Your task to perform on an android device: Open location settings Image 0: 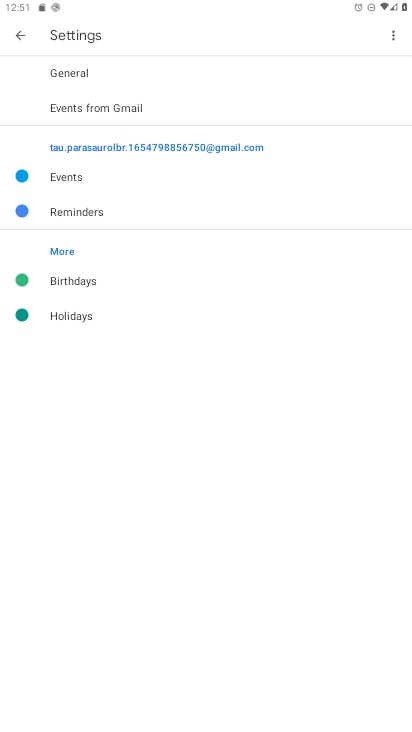
Step 0: press home button
Your task to perform on an android device: Open location settings Image 1: 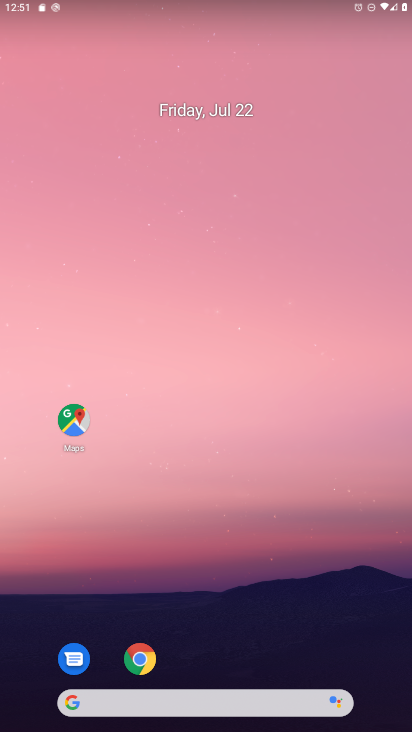
Step 1: drag from (301, 676) to (315, 217)
Your task to perform on an android device: Open location settings Image 2: 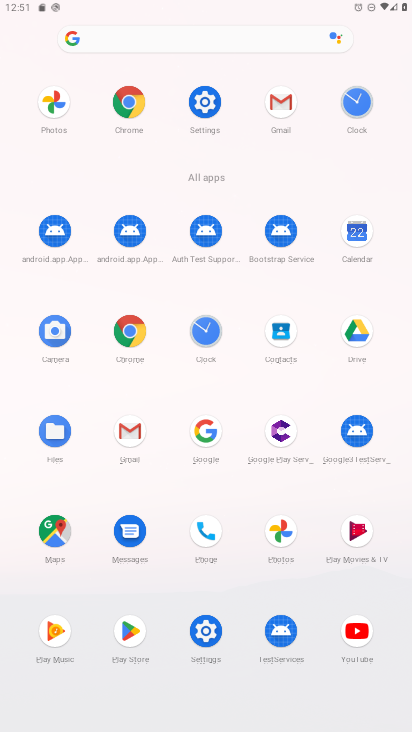
Step 2: click (215, 635)
Your task to perform on an android device: Open location settings Image 3: 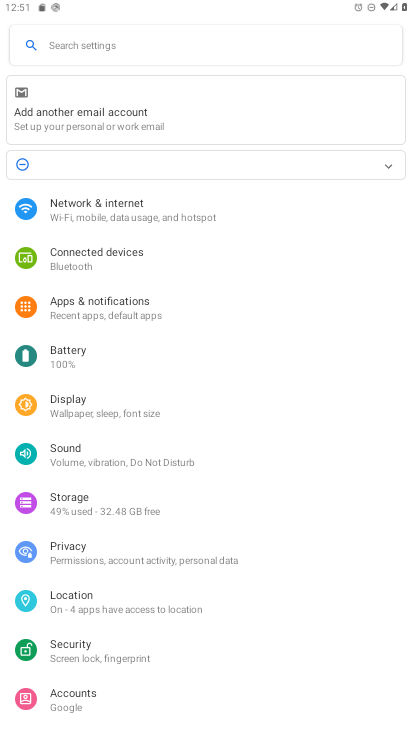
Step 3: click (88, 607)
Your task to perform on an android device: Open location settings Image 4: 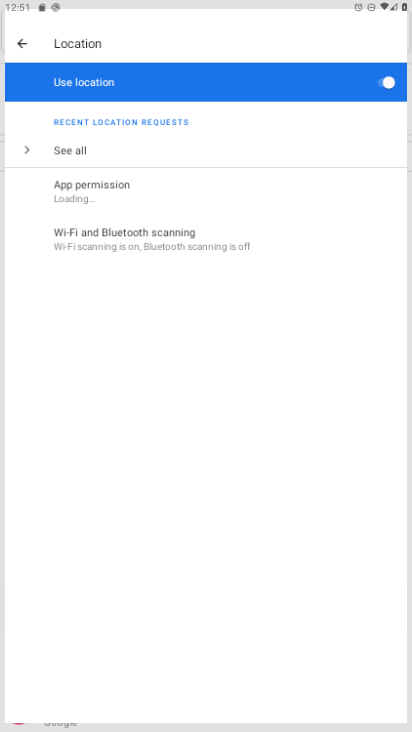
Step 4: click (81, 597)
Your task to perform on an android device: Open location settings Image 5: 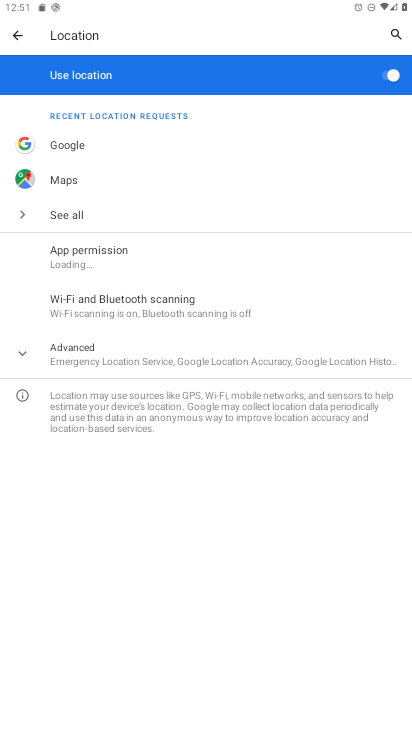
Step 5: click (175, 506)
Your task to perform on an android device: Open location settings Image 6: 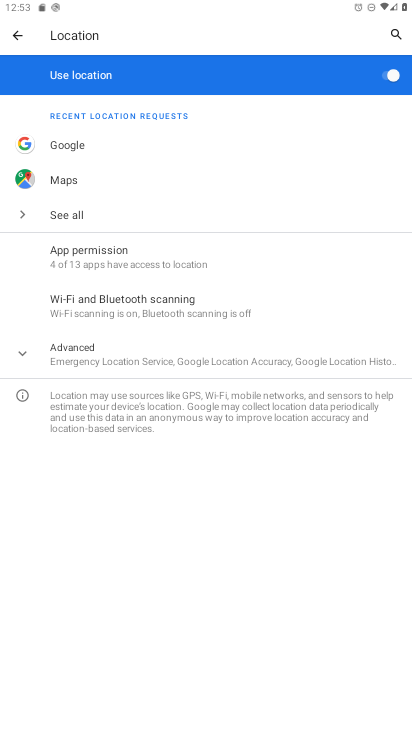
Step 6: task complete